Your task to perform on an android device: open device folders in google photos Image 0: 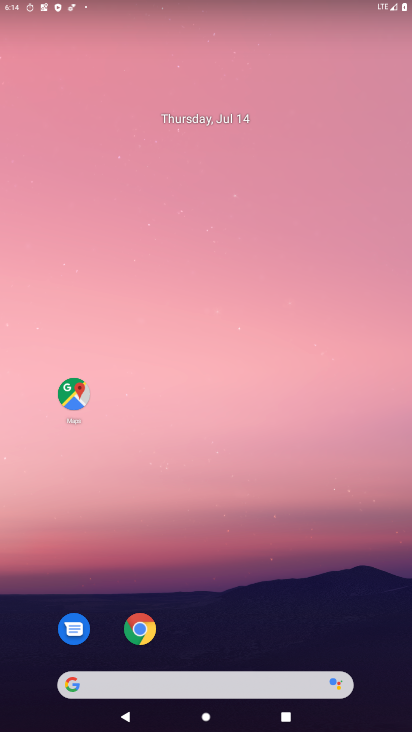
Step 0: drag from (215, 700) to (284, 45)
Your task to perform on an android device: open device folders in google photos Image 1: 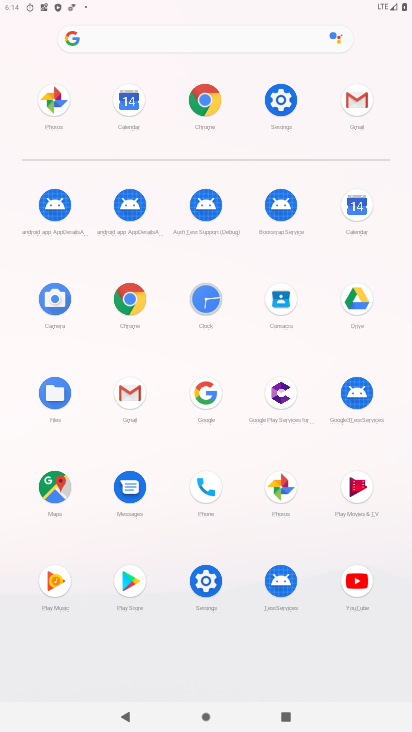
Step 1: click (281, 485)
Your task to perform on an android device: open device folders in google photos Image 2: 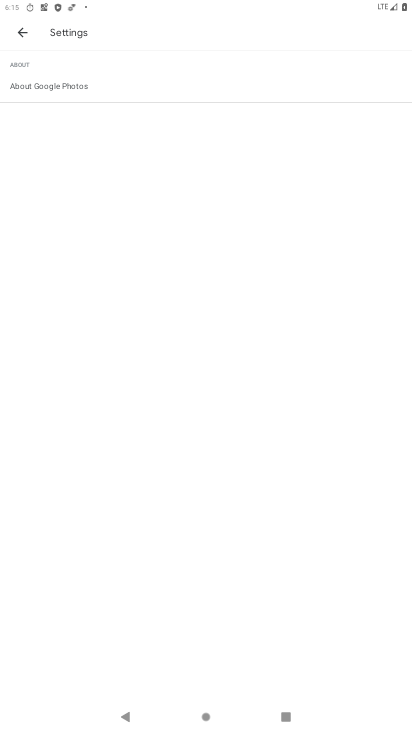
Step 2: press back button
Your task to perform on an android device: open device folders in google photos Image 3: 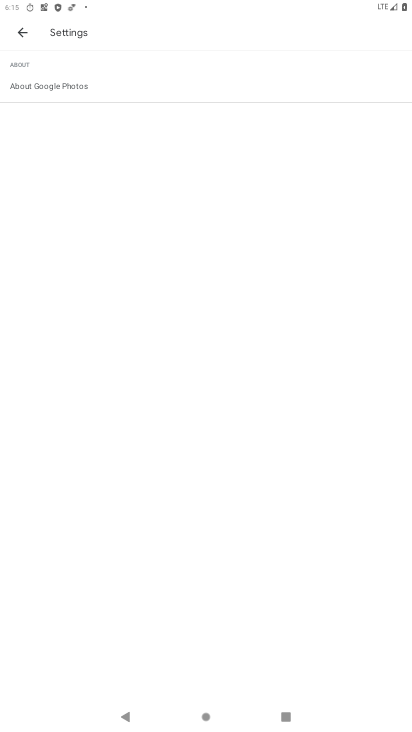
Step 3: press back button
Your task to perform on an android device: open device folders in google photos Image 4: 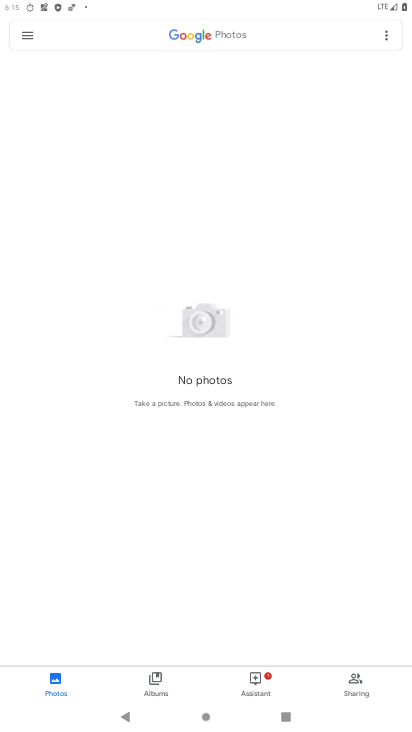
Step 4: click (23, 33)
Your task to perform on an android device: open device folders in google photos Image 5: 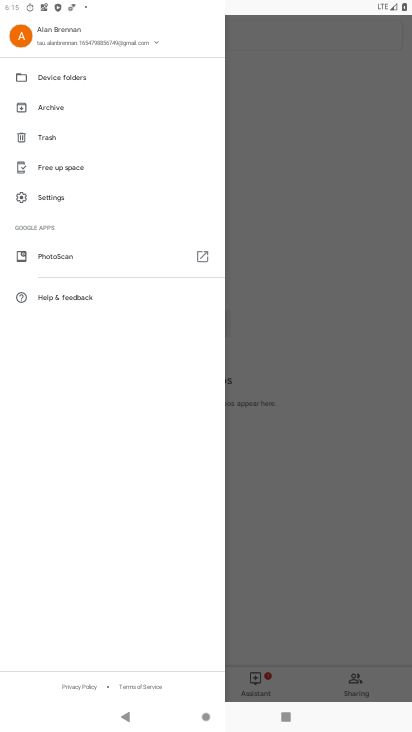
Step 5: click (66, 72)
Your task to perform on an android device: open device folders in google photos Image 6: 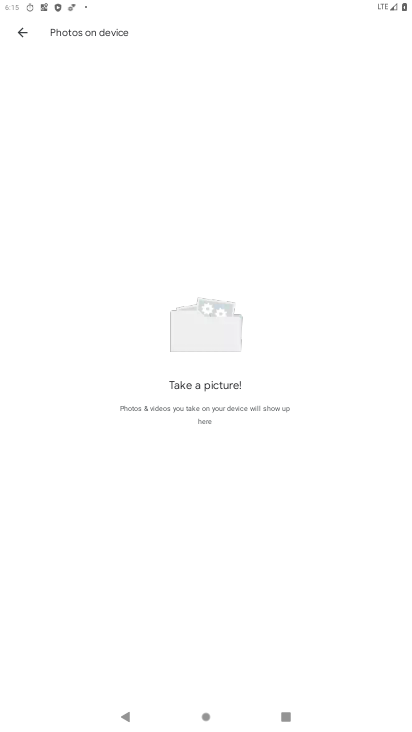
Step 6: task complete